Your task to perform on an android device: Open calendar and show me the third week of next month Image 0: 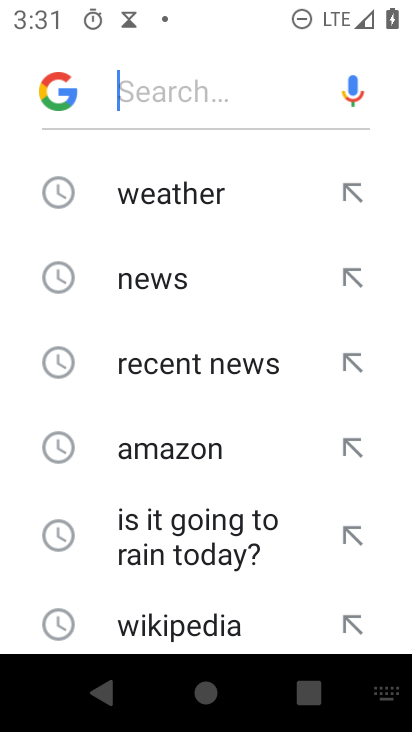
Step 0: press home button
Your task to perform on an android device: Open calendar and show me the third week of next month Image 1: 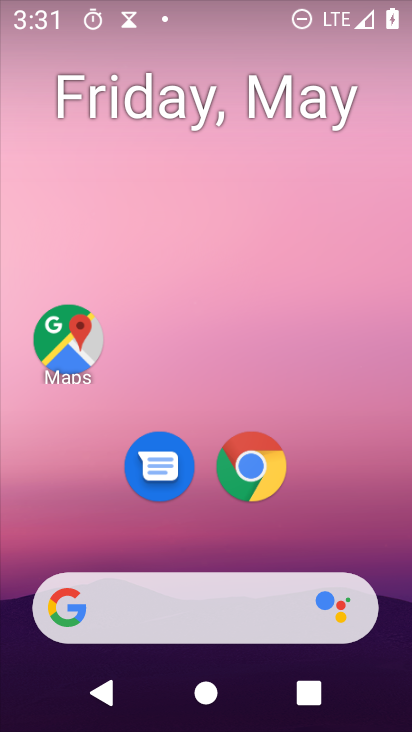
Step 1: drag from (365, 536) to (411, 114)
Your task to perform on an android device: Open calendar and show me the third week of next month Image 2: 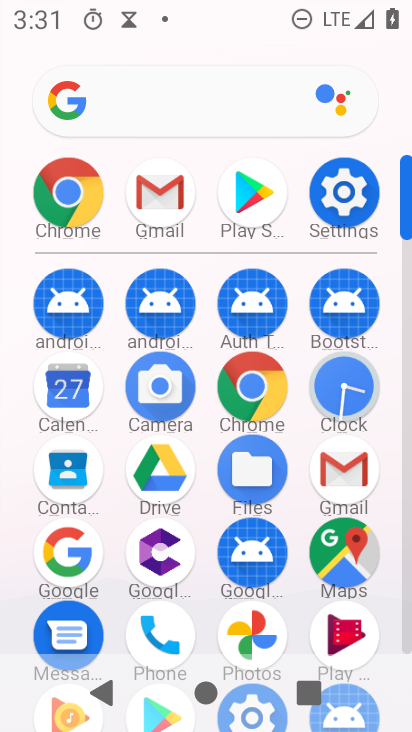
Step 2: click (75, 383)
Your task to perform on an android device: Open calendar and show me the third week of next month Image 3: 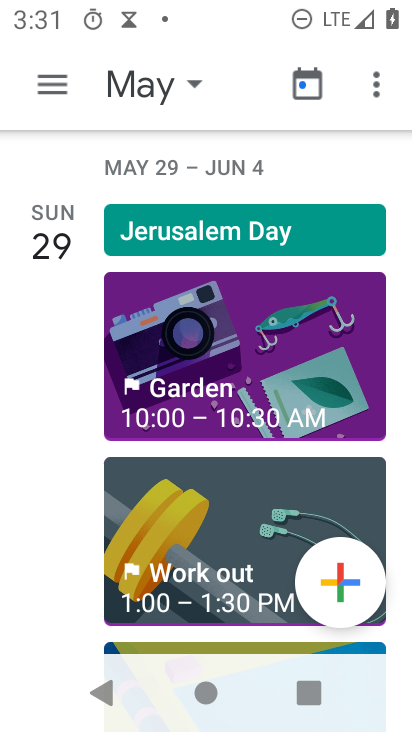
Step 3: click (145, 100)
Your task to perform on an android device: Open calendar and show me the third week of next month Image 4: 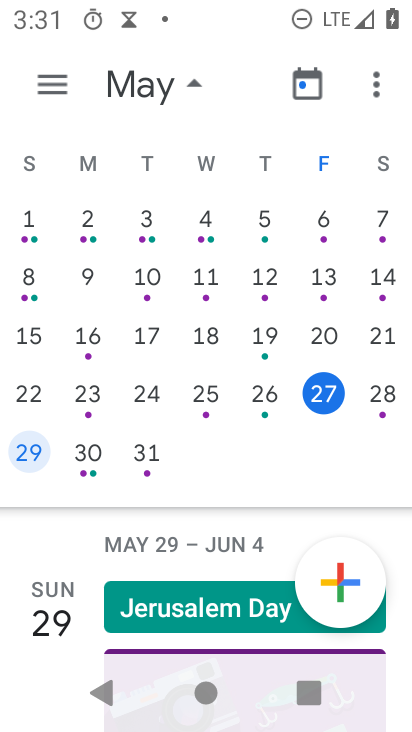
Step 4: drag from (380, 331) to (4, 318)
Your task to perform on an android device: Open calendar and show me the third week of next month Image 5: 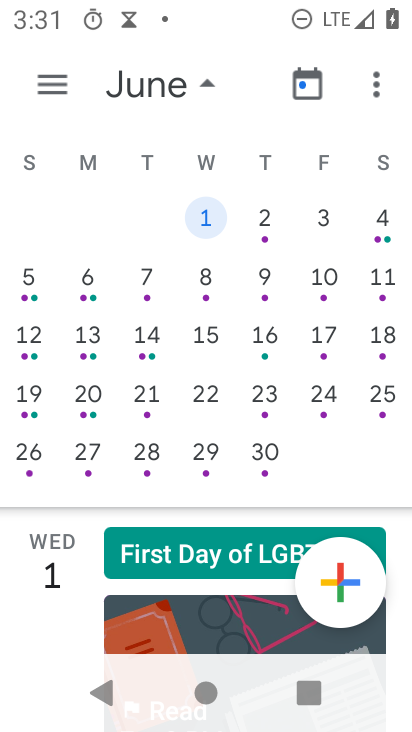
Step 5: click (157, 397)
Your task to perform on an android device: Open calendar and show me the third week of next month Image 6: 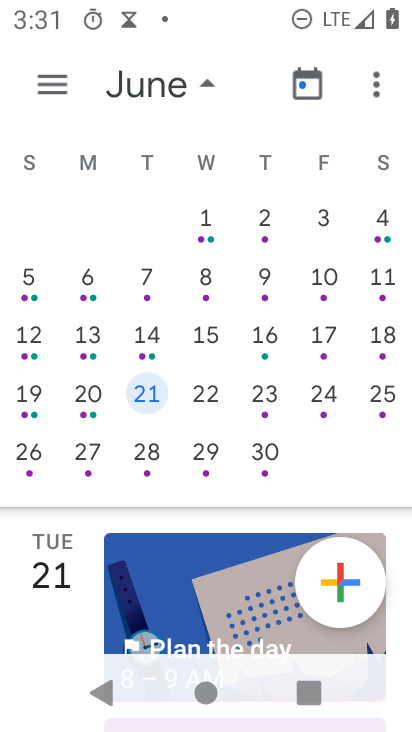
Step 6: task complete